Your task to perform on an android device: move an email to a new category in the gmail app Image 0: 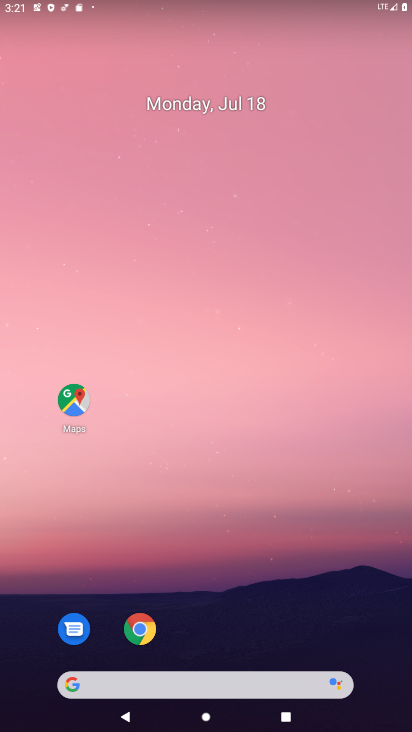
Step 0: drag from (234, 628) to (235, 245)
Your task to perform on an android device: move an email to a new category in the gmail app Image 1: 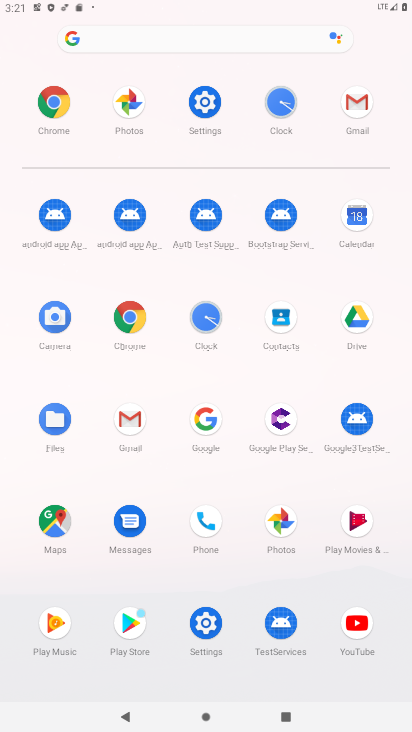
Step 1: click (138, 429)
Your task to perform on an android device: move an email to a new category in the gmail app Image 2: 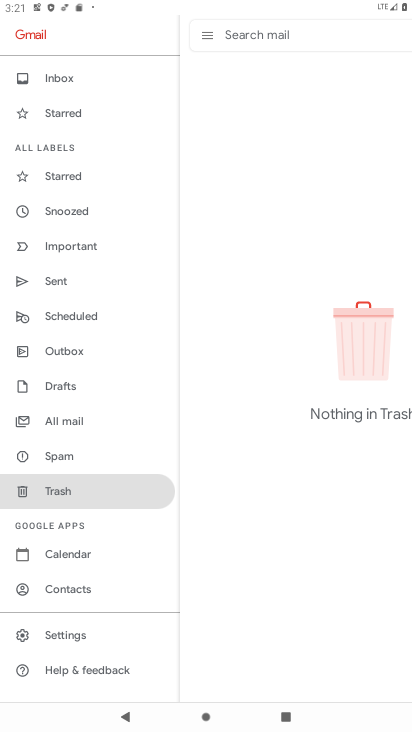
Step 2: click (71, 77)
Your task to perform on an android device: move an email to a new category in the gmail app Image 3: 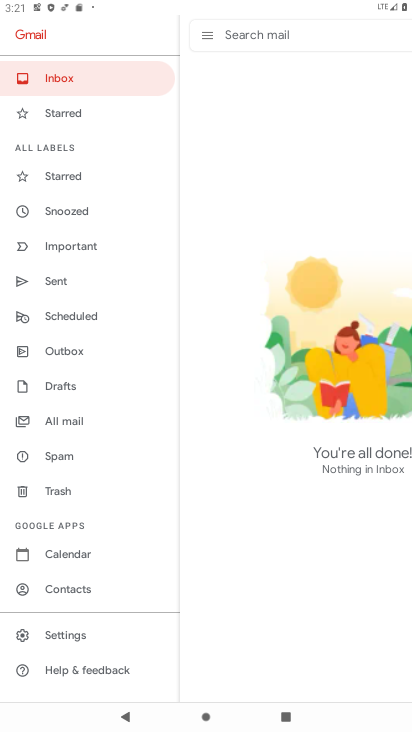
Step 3: task complete